Your task to perform on an android device: Go to internet settings Image 0: 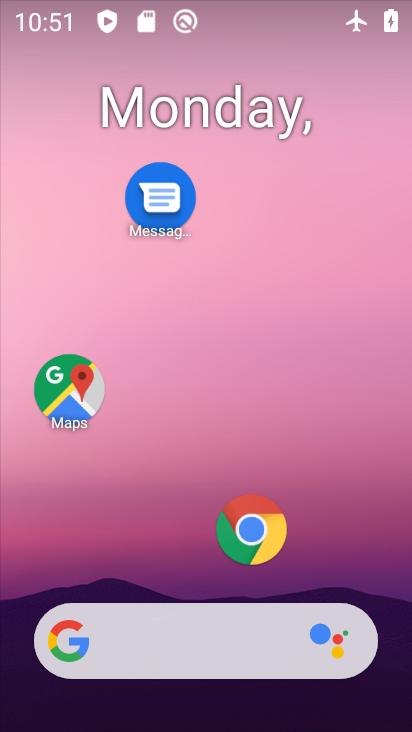
Step 0: drag from (182, 548) to (225, 237)
Your task to perform on an android device: Go to internet settings Image 1: 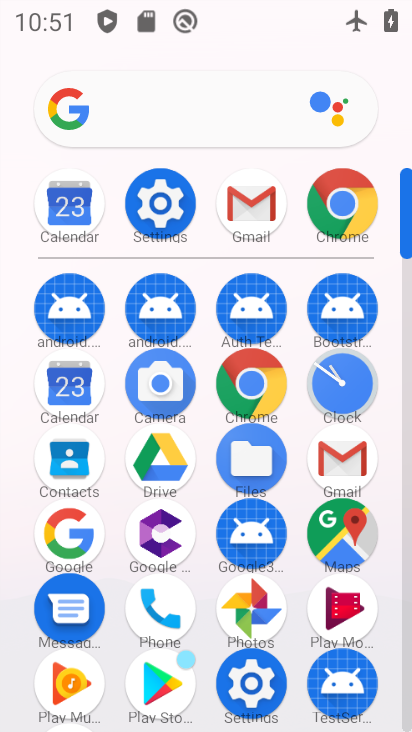
Step 1: click (174, 223)
Your task to perform on an android device: Go to internet settings Image 2: 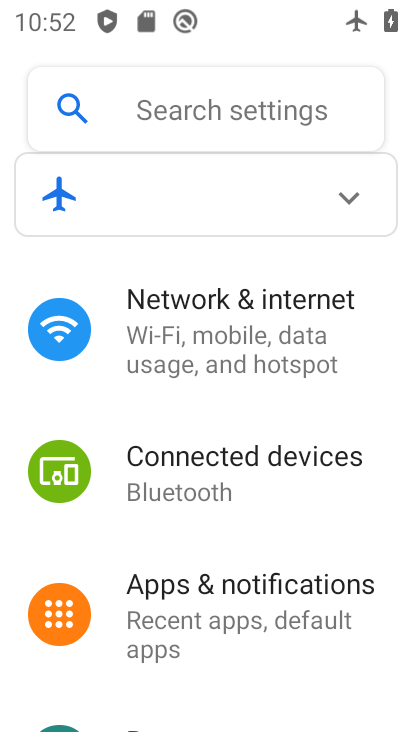
Step 2: click (173, 362)
Your task to perform on an android device: Go to internet settings Image 3: 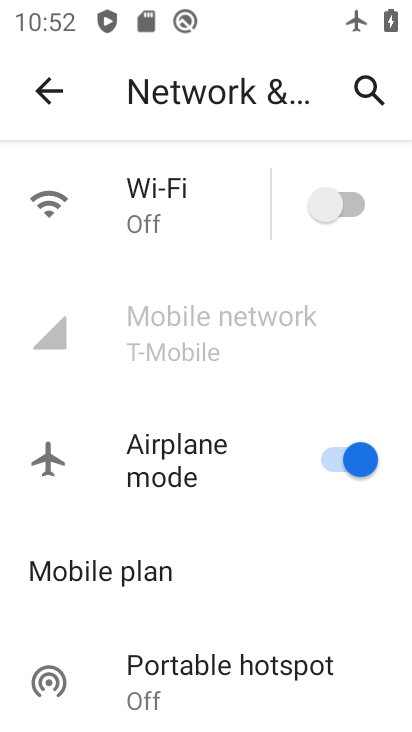
Step 3: task complete